Your task to perform on an android device: turn pop-ups off in chrome Image 0: 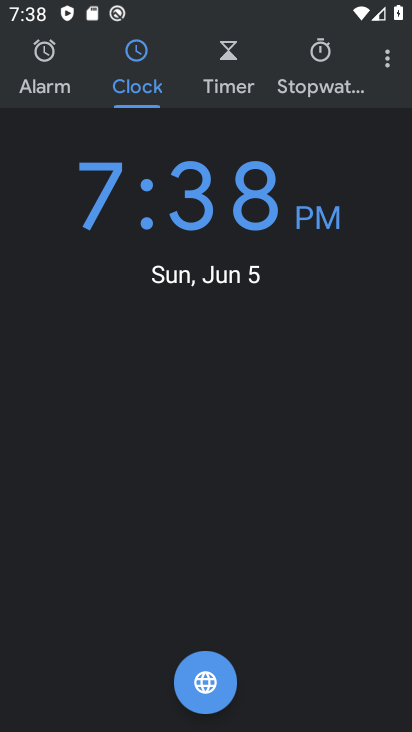
Step 0: press home button
Your task to perform on an android device: turn pop-ups off in chrome Image 1: 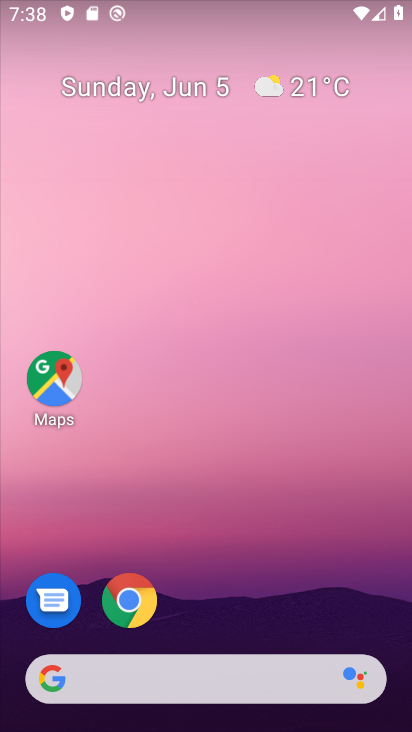
Step 1: click (129, 601)
Your task to perform on an android device: turn pop-ups off in chrome Image 2: 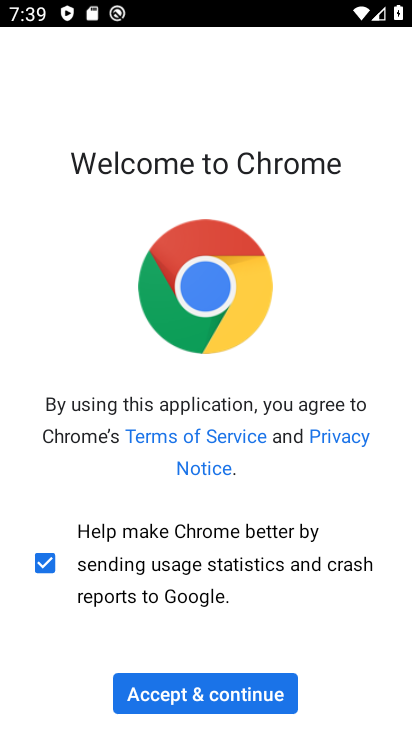
Step 2: click (193, 685)
Your task to perform on an android device: turn pop-ups off in chrome Image 3: 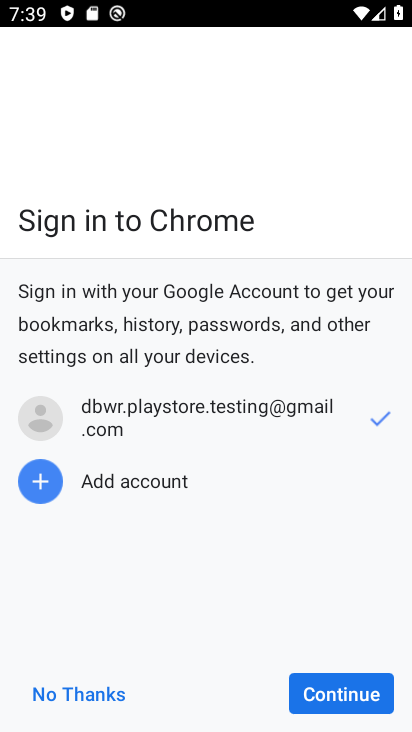
Step 3: click (318, 692)
Your task to perform on an android device: turn pop-ups off in chrome Image 4: 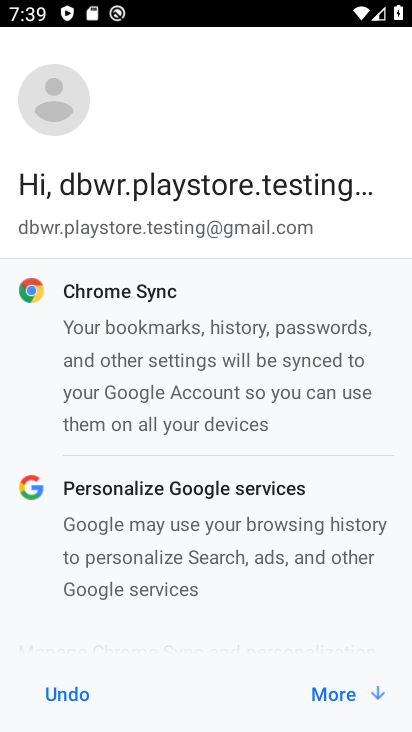
Step 4: click (318, 692)
Your task to perform on an android device: turn pop-ups off in chrome Image 5: 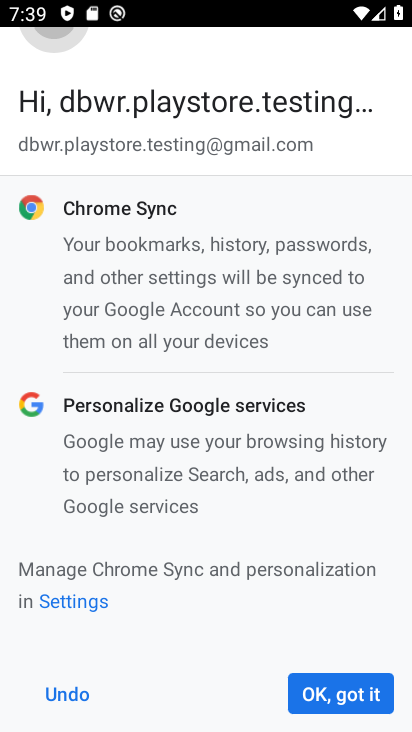
Step 5: click (318, 692)
Your task to perform on an android device: turn pop-ups off in chrome Image 6: 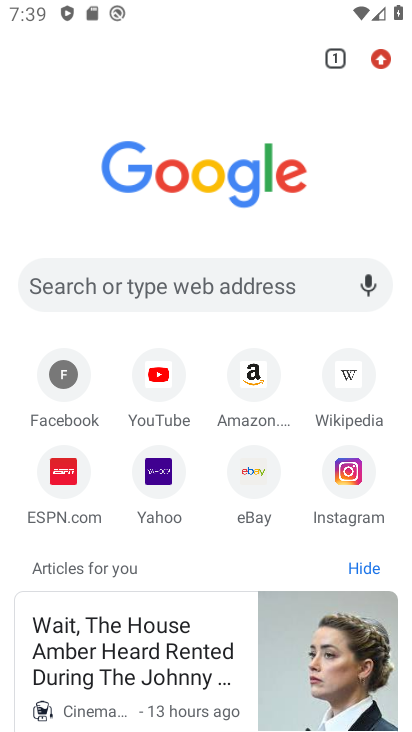
Step 6: click (382, 53)
Your task to perform on an android device: turn pop-ups off in chrome Image 7: 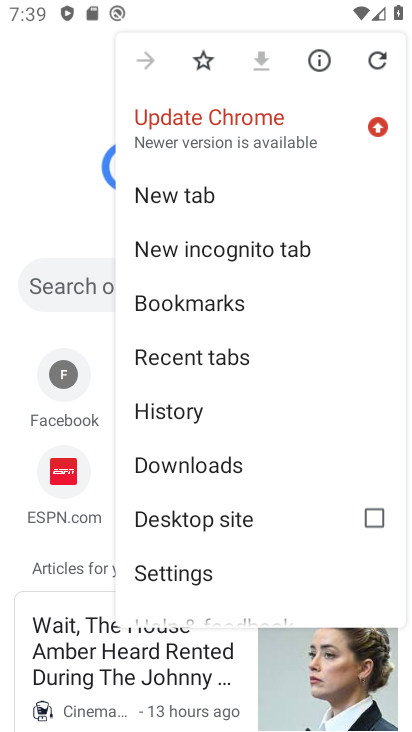
Step 7: click (197, 572)
Your task to perform on an android device: turn pop-ups off in chrome Image 8: 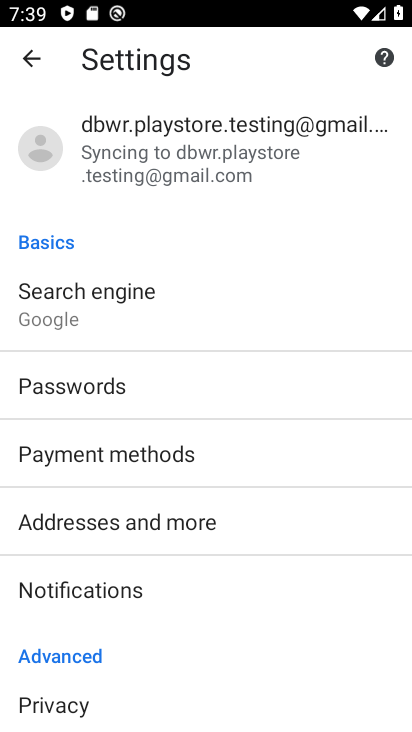
Step 8: drag from (225, 628) to (271, 245)
Your task to perform on an android device: turn pop-ups off in chrome Image 9: 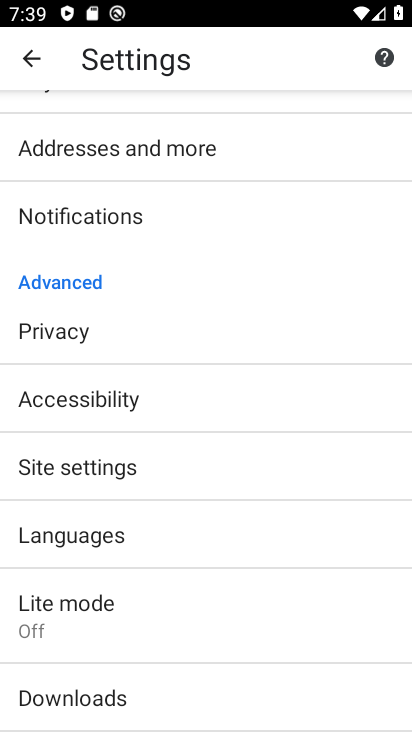
Step 9: drag from (249, 628) to (266, 386)
Your task to perform on an android device: turn pop-ups off in chrome Image 10: 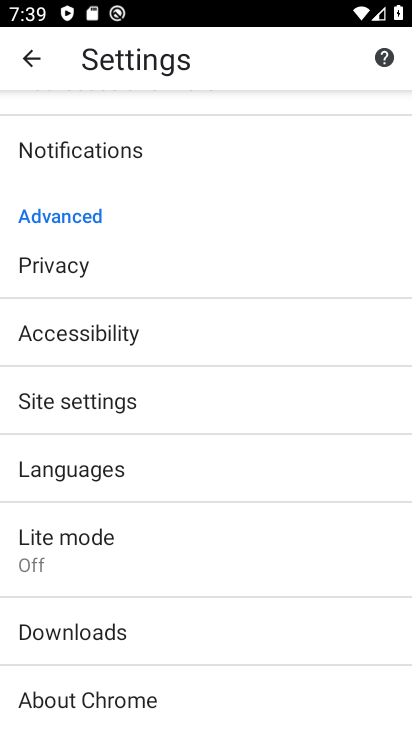
Step 10: click (251, 409)
Your task to perform on an android device: turn pop-ups off in chrome Image 11: 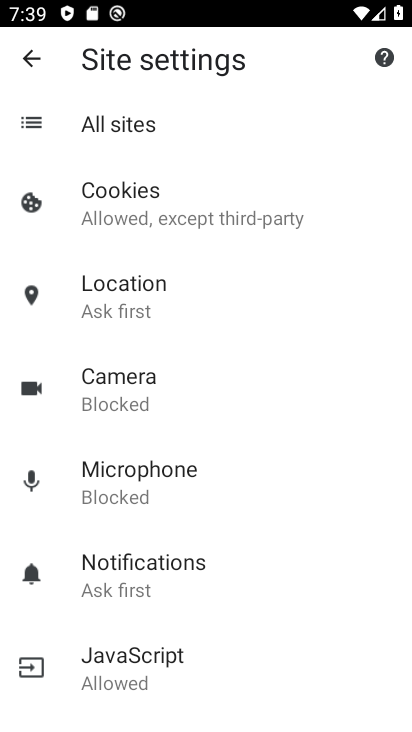
Step 11: drag from (229, 595) to (245, 366)
Your task to perform on an android device: turn pop-ups off in chrome Image 12: 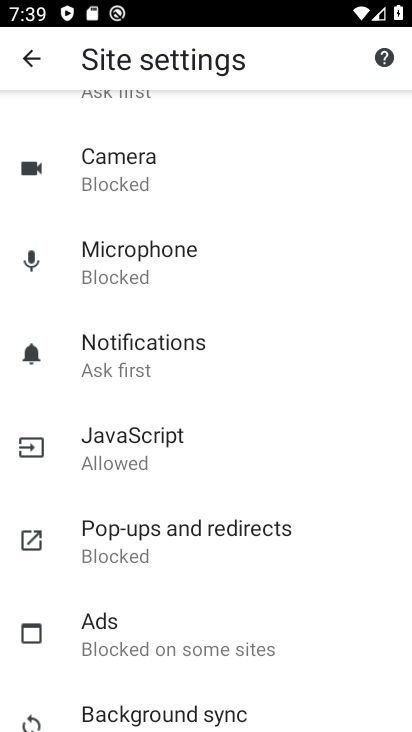
Step 12: click (202, 536)
Your task to perform on an android device: turn pop-ups off in chrome Image 13: 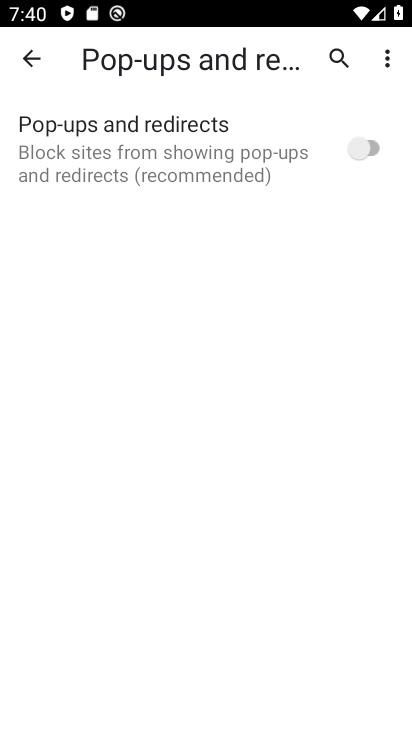
Step 13: task complete